Your task to perform on an android device: Open CNN.com Image 0: 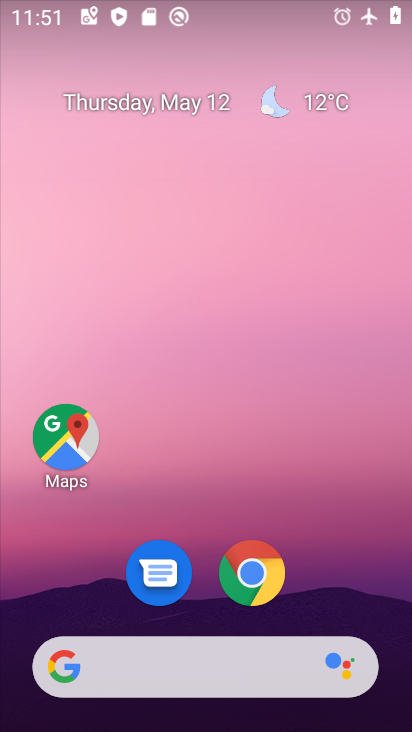
Step 0: click (273, 657)
Your task to perform on an android device: Open CNN.com Image 1: 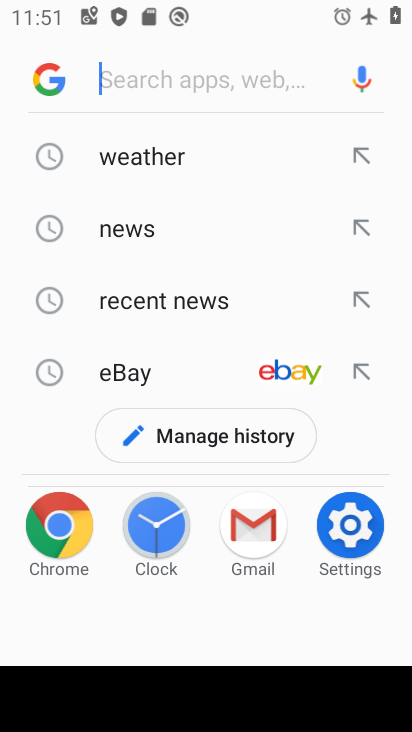
Step 1: type "cnn.com"
Your task to perform on an android device: Open CNN.com Image 2: 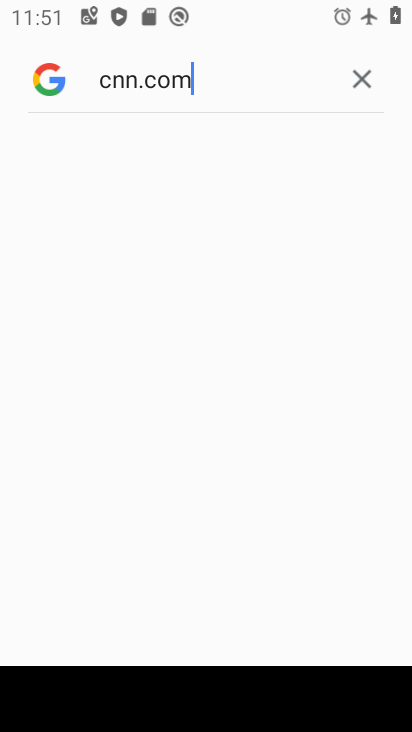
Step 2: task complete